Your task to perform on an android device: toggle notifications settings in the gmail app Image 0: 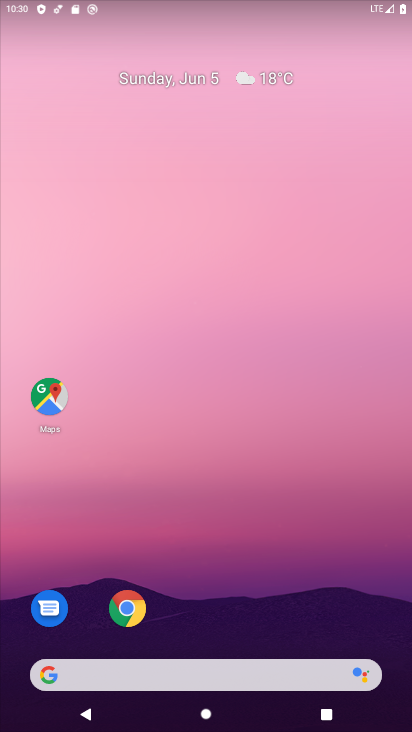
Step 0: drag from (189, 656) to (244, 277)
Your task to perform on an android device: toggle notifications settings in the gmail app Image 1: 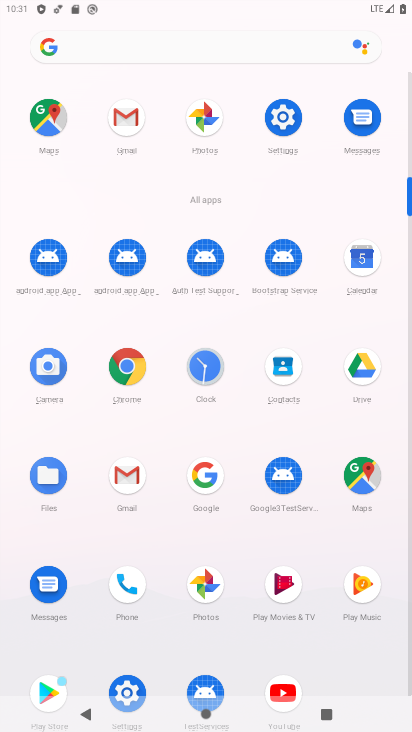
Step 1: click (126, 120)
Your task to perform on an android device: toggle notifications settings in the gmail app Image 2: 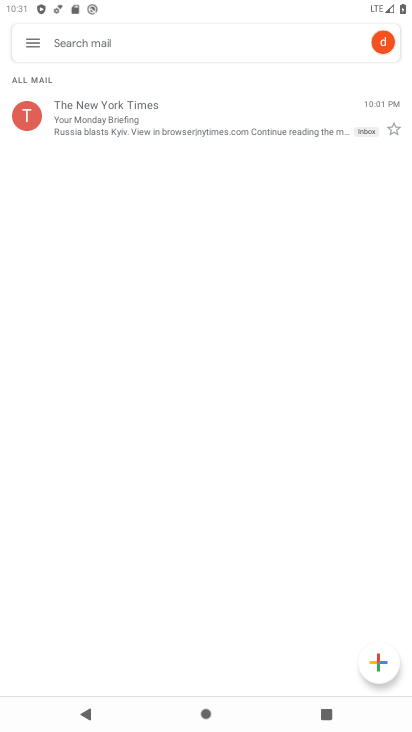
Step 2: click (27, 51)
Your task to perform on an android device: toggle notifications settings in the gmail app Image 3: 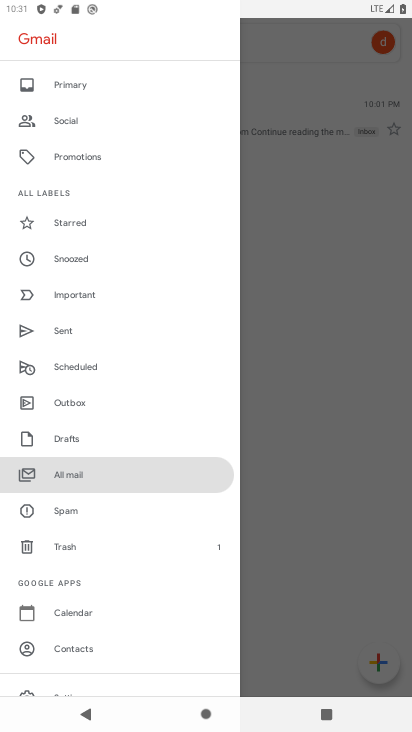
Step 3: drag from (68, 627) to (113, 208)
Your task to perform on an android device: toggle notifications settings in the gmail app Image 4: 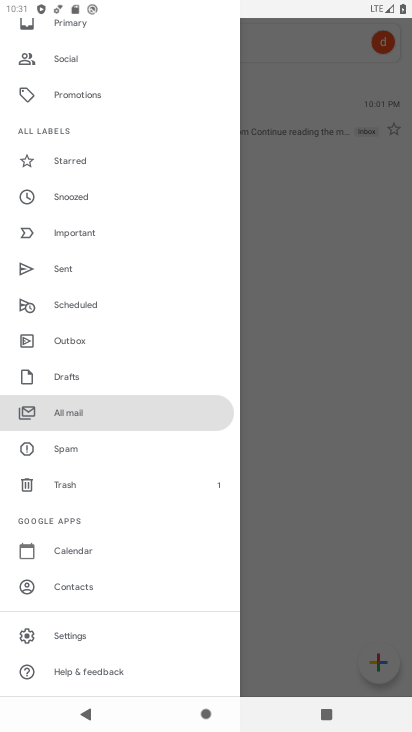
Step 4: click (88, 636)
Your task to perform on an android device: toggle notifications settings in the gmail app Image 5: 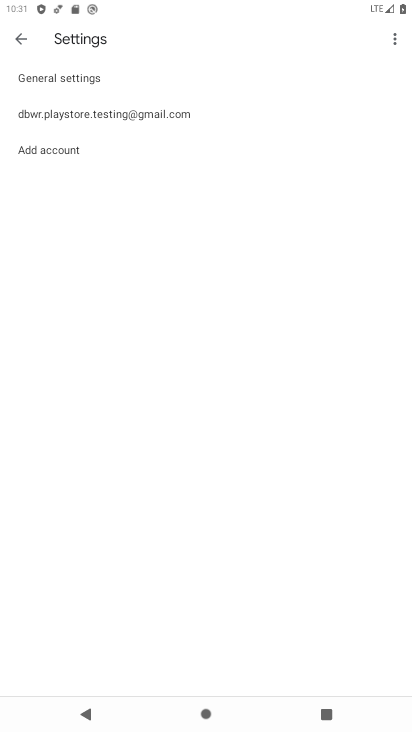
Step 5: click (108, 117)
Your task to perform on an android device: toggle notifications settings in the gmail app Image 6: 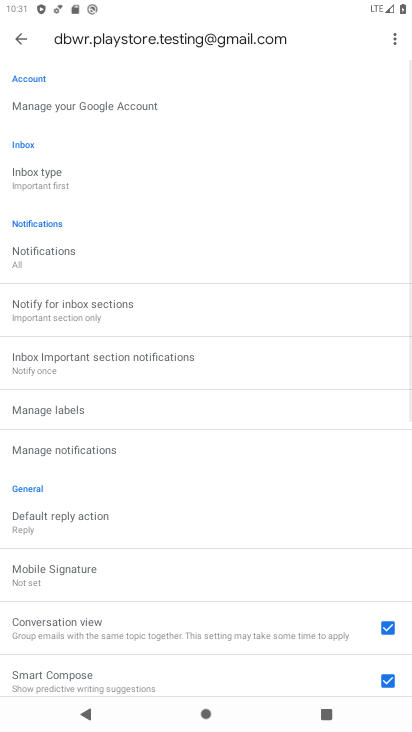
Step 6: task complete